Your task to perform on an android device: Go to Google maps Image 0: 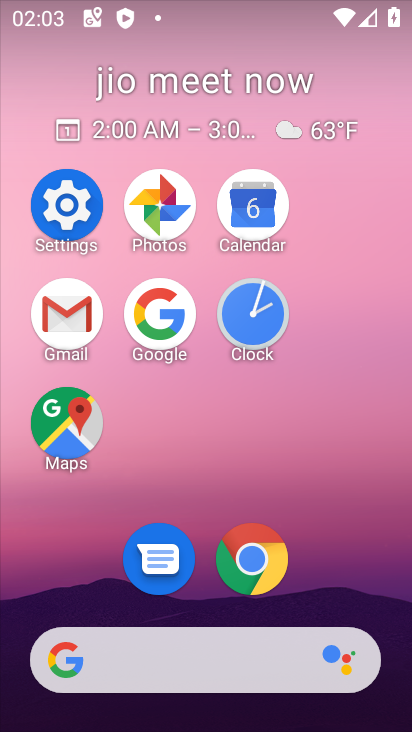
Step 0: click (67, 433)
Your task to perform on an android device: Go to Google maps Image 1: 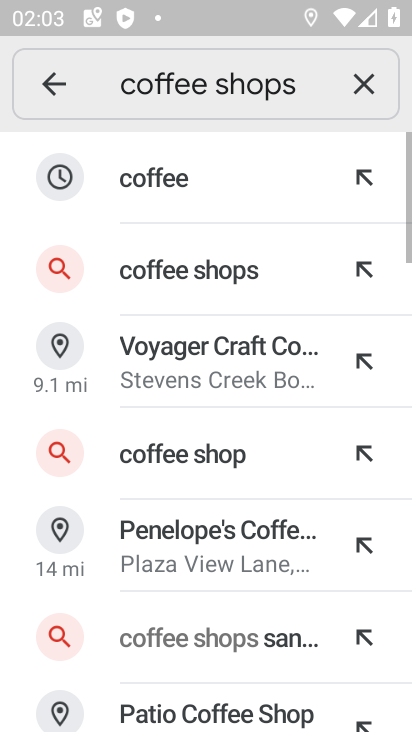
Step 1: task complete